Your task to perform on an android device: turn off translation in the chrome app Image 0: 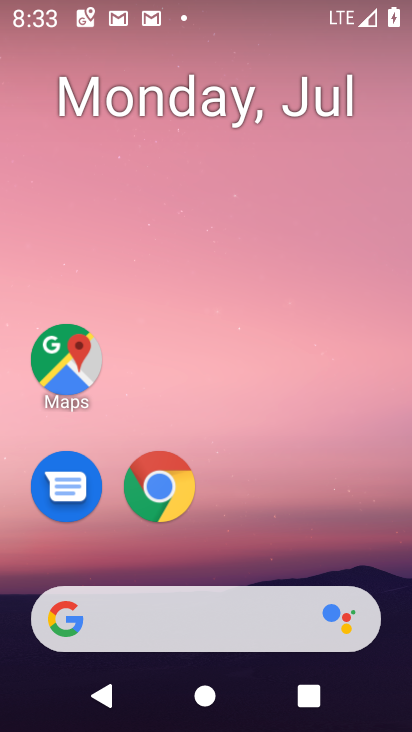
Step 0: drag from (360, 551) to (328, 79)
Your task to perform on an android device: turn off translation in the chrome app Image 1: 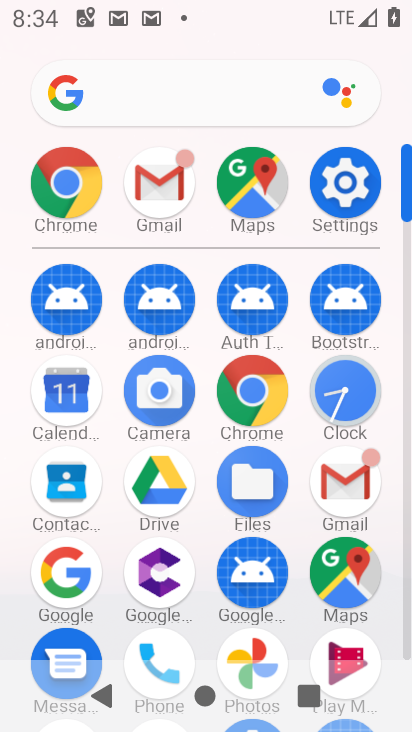
Step 1: click (250, 389)
Your task to perform on an android device: turn off translation in the chrome app Image 2: 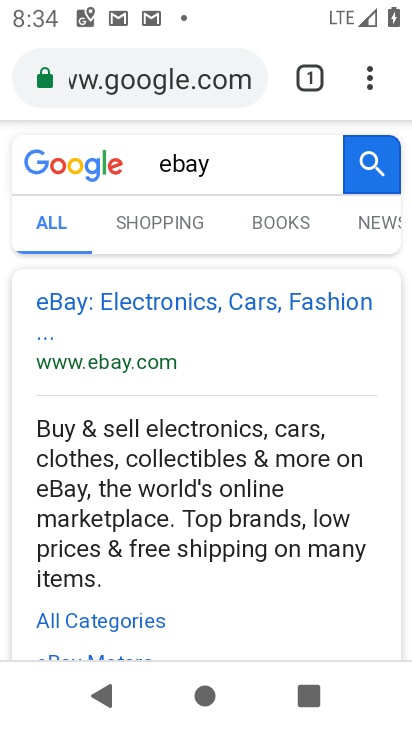
Step 2: click (371, 85)
Your task to perform on an android device: turn off translation in the chrome app Image 3: 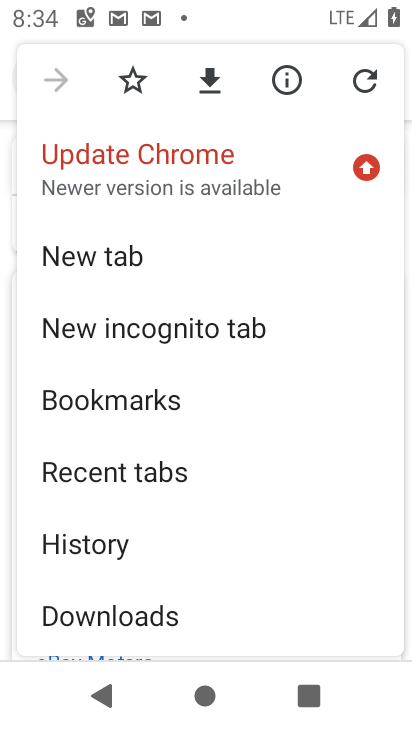
Step 3: drag from (326, 377) to (329, 222)
Your task to perform on an android device: turn off translation in the chrome app Image 4: 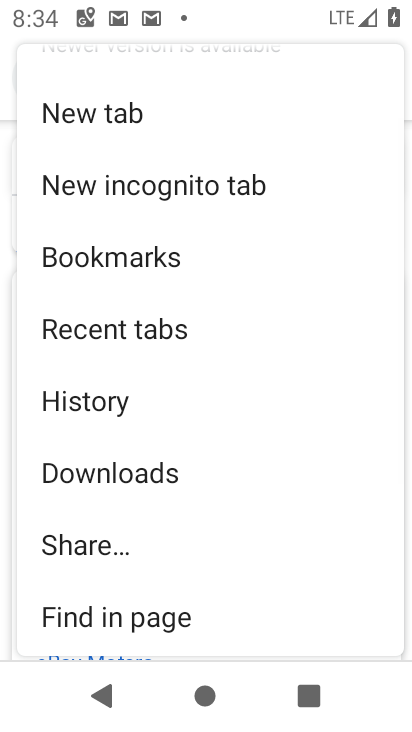
Step 4: drag from (329, 408) to (301, 236)
Your task to perform on an android device: turn off translation in the chrome app Image 5: 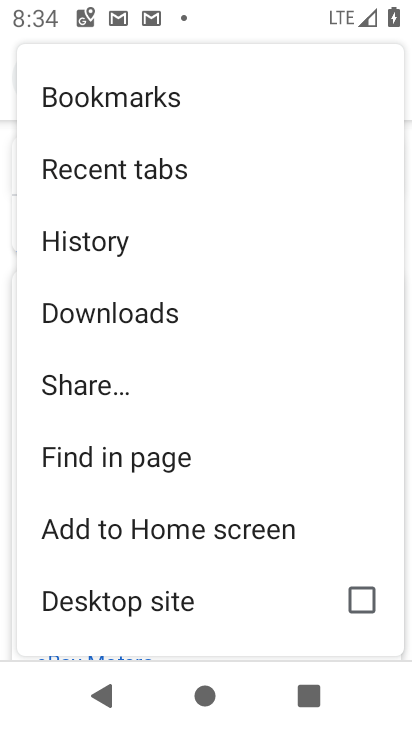
Step 5: drag from (302, 419) to (297, 212)
Your task to perform on an android device: turn off translation in the chrome app Image 6: 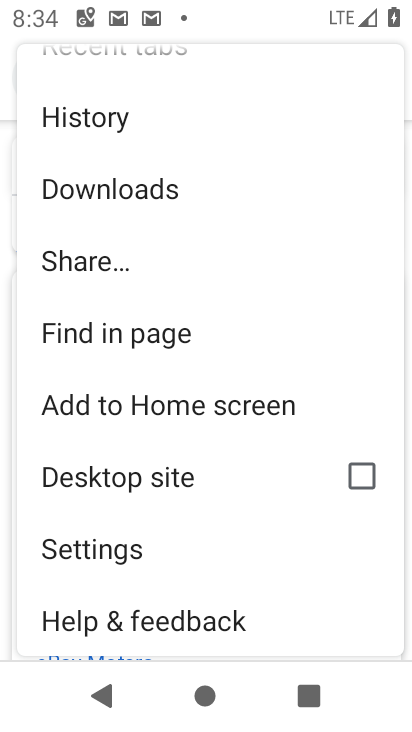
Step 6: click (134, 549)
Your task to perform on an android device: turn off translation in the chrome app Image 7: 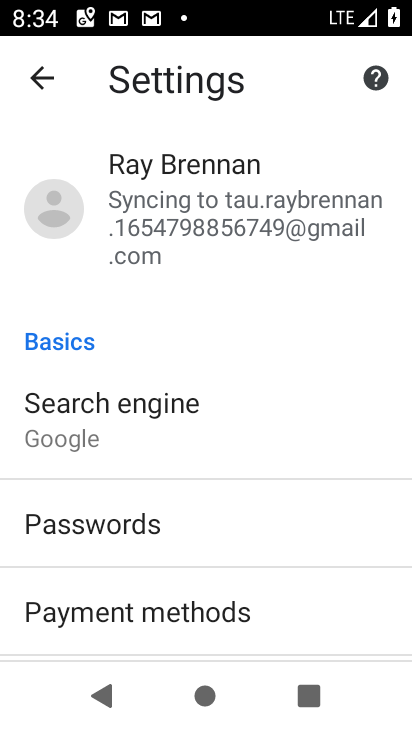
Step 7: drag from (303, 532) to (306, 229)
Your task to perform on an android device: turn off translation in the chrome app Image 8: 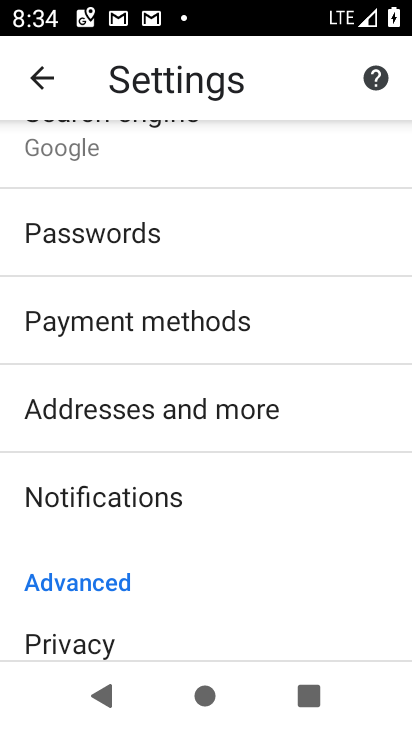
Step 8: drag from (341, 492) to (342, 268)
Your task to perform on an android device: turn off translation in the chrome app Image 9: 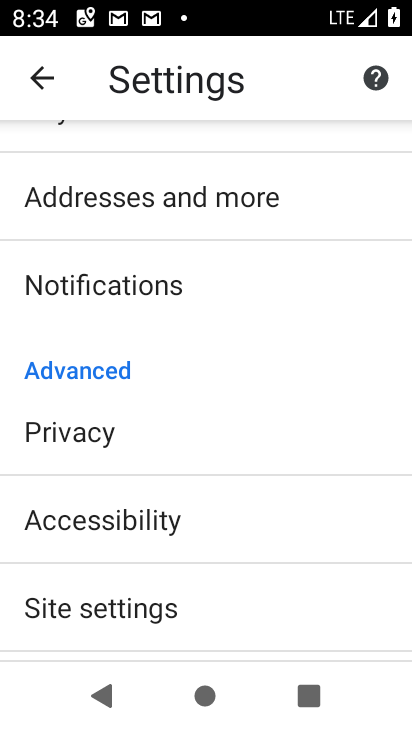
Step 9: drag from (346, 494) to (348, 320)
Your task to perform on an android device: turn off translation in the chrome app Image 10: 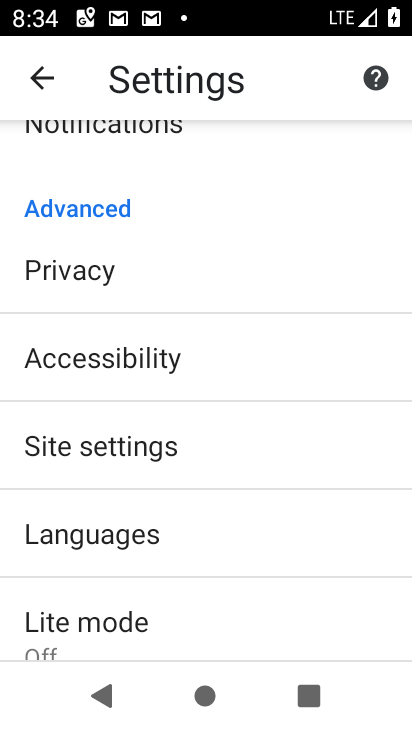
Step 10: drag from (321, 500) to (309, 347)
Your task to perform on an android device: turn off translation in the chrome app Image 11: 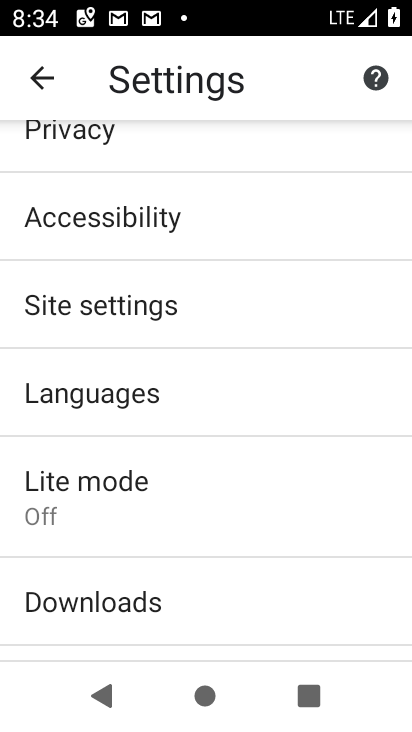
Step 11: click (285, 391)
Your task to perform on an android device: turn off translation in the chrome app Image 12: 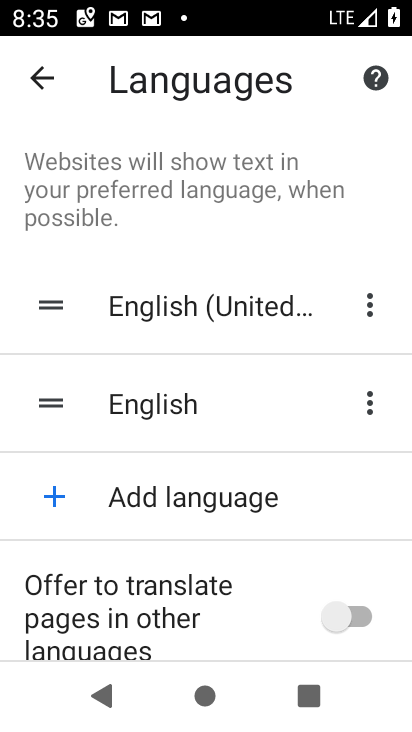
Step 12: task complete